Your task to perform on an android device: turn pop-ups off in chrome Image 0: 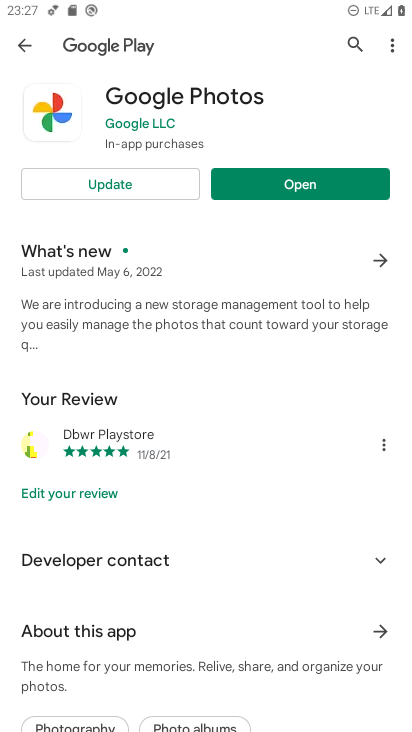
Step 0: press home button
Your task to perform on an android device: turn pop-ups off in chrome Image 1: 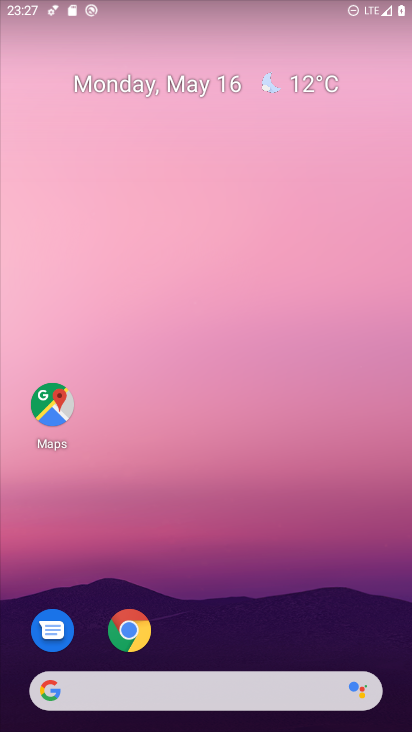
Step 1: click (118, 654)
Your task to perform on an android device: turn pop-ups off in chrome Image 2: 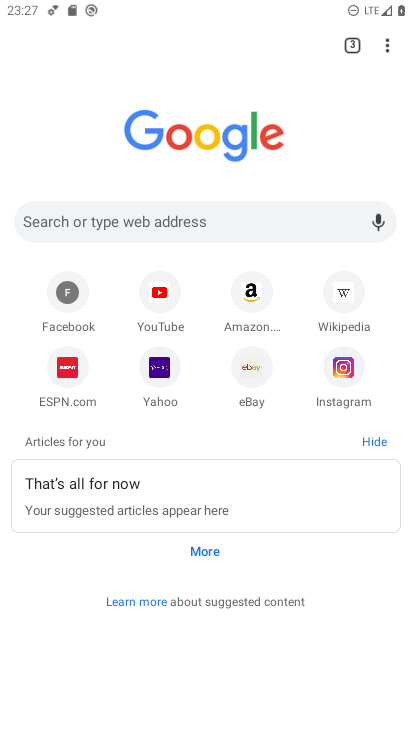
Step 2: click (383, 44)
Your task to perform on an android device: turn pop-ups off in chrome Image 3: 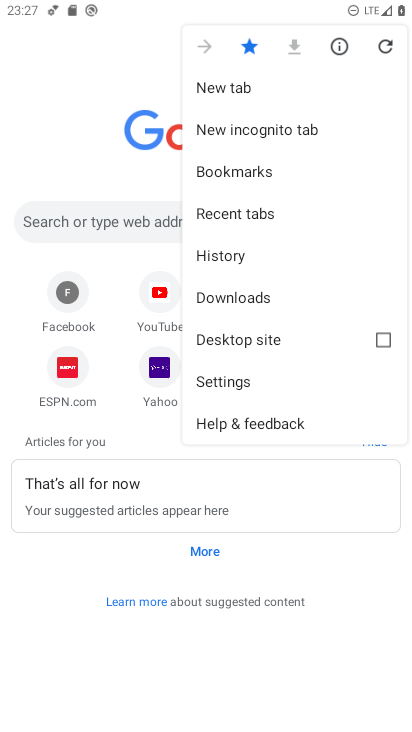
Step 3: click (255, 374)
Your task to perform on an android device: turn pop-ups off in chrome Image 4: 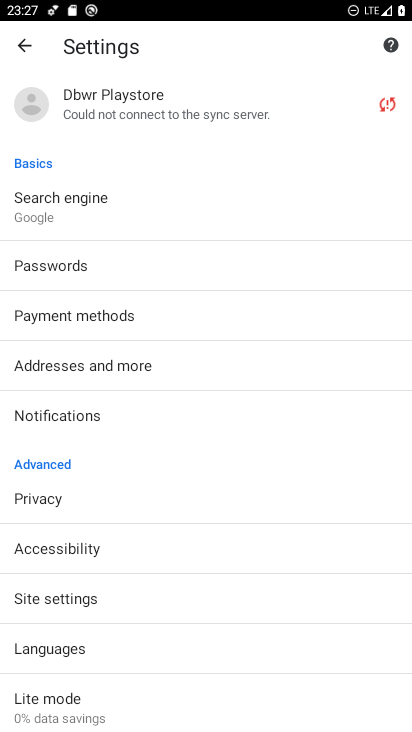
Step 4: click (106, 600)
Your task to perform on an android device: turn pop-ups off in chrome Image 5: 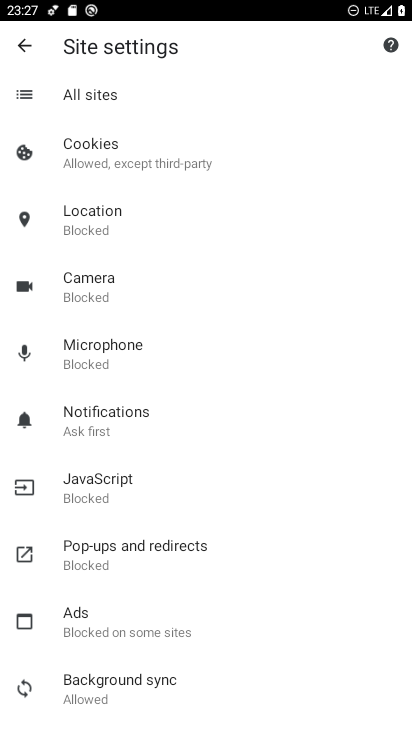
Step 5: click (227, 552)
Your task to perform on an android device: turn pop-ups off in chrome Image 6: 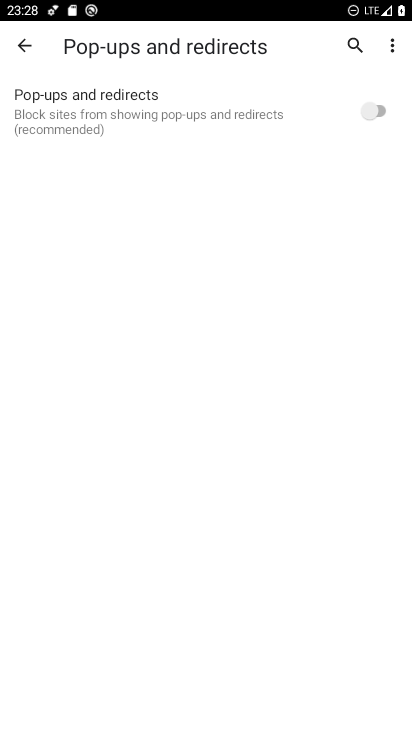
Step 6: task complete